Your task to perform on an android device: create a new album in the google photos Image 0: 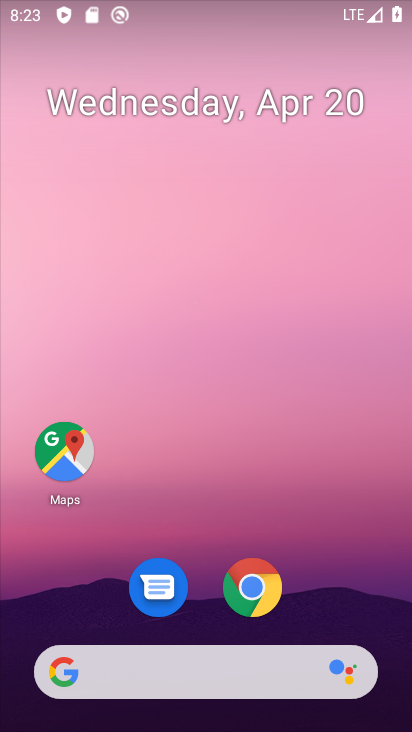
Step 0: drag from (374, 547) to (365, 222)
Your task to perform on an android device: create a new album in the google photos Image 1: 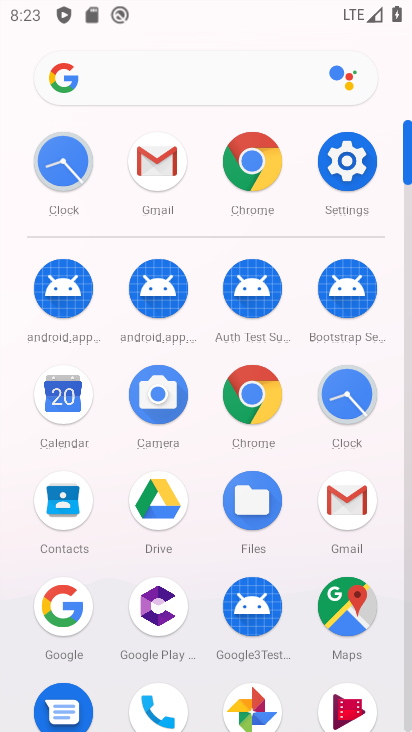
Step 1: drag from (387, 513) to (394, 275)
Your task to perform on an android device: create a new album in the google photos Image 2: 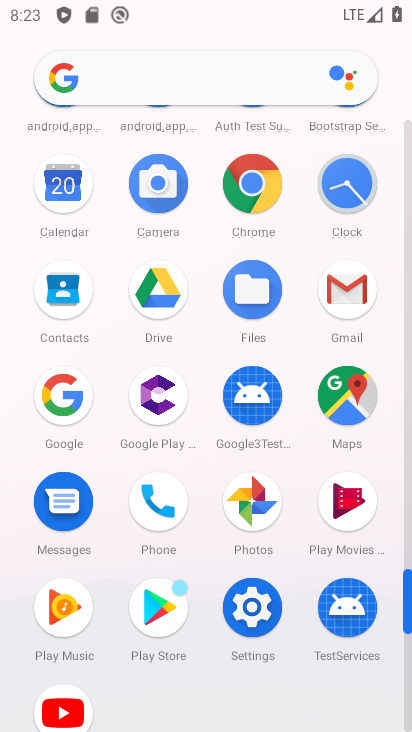
Step 2: click (252, 518)
Your task to perform on an android device: create a new album in the google photos Image 3: 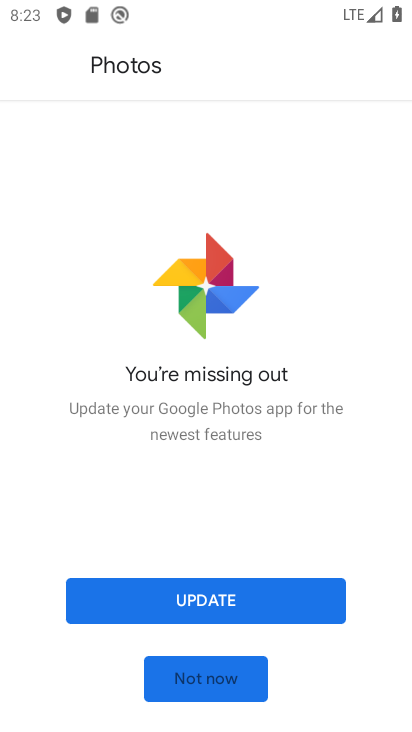
Step 3: click (239, 594)
Your task to perform on an android device: create a new album in the google photos Image 4: 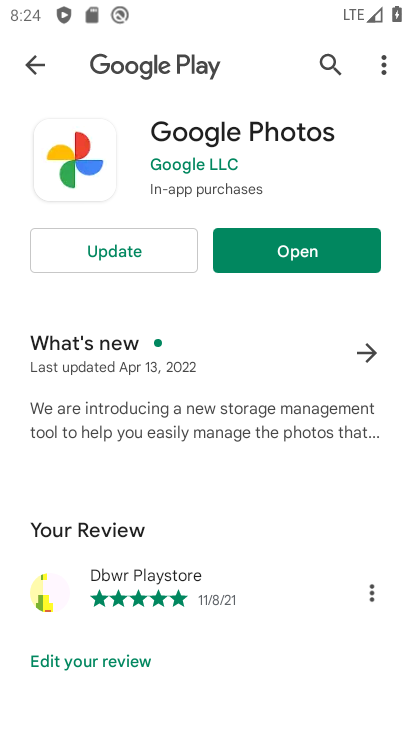
Step 4: click (142, 252)
Your task to perform on an android device: create a new album in the google photos Image 5: 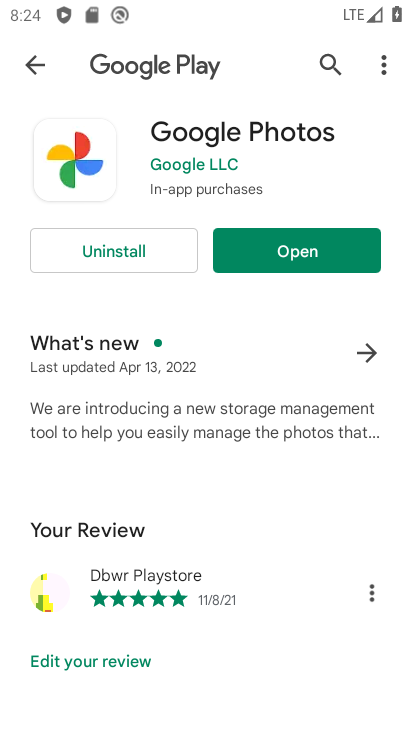
Step 5: click (322, 249)
Your task to perform on an android device: create a new album in the google photos Image 6: 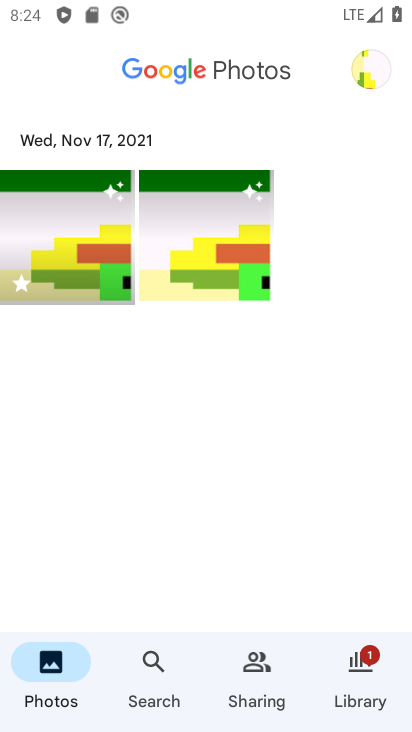
Step 6: click (374, 688)
Your task to perform on an android device: create a new album in the google photos Image 7: 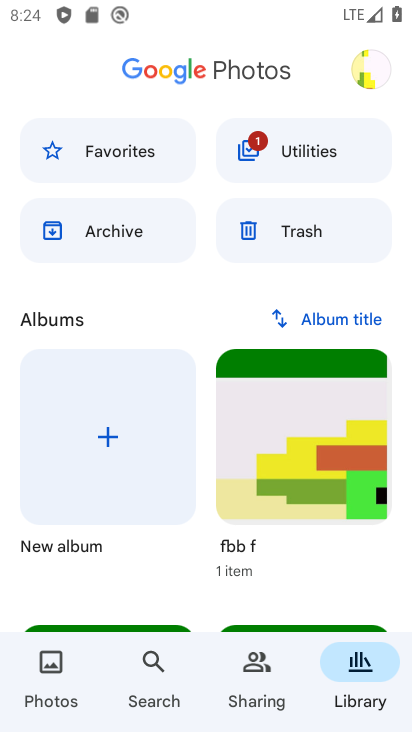
Step 7: click (95, 482)
Your task to perform on an android device: create a new album in the google photos Image 8: 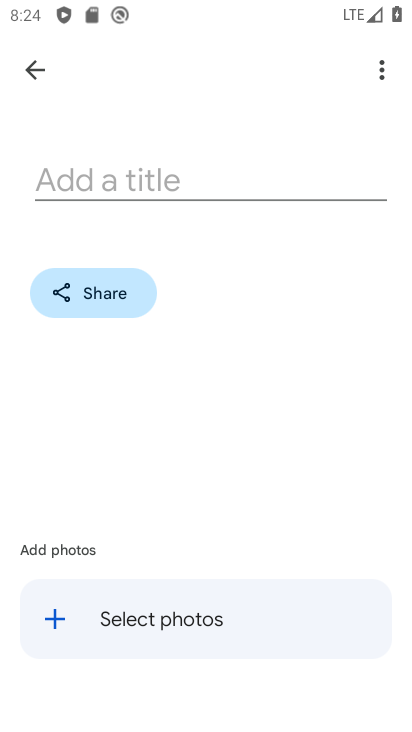
Step 8: click (195, 185)
Your task to perform on an android device: create a new album in the google photos Image 9: 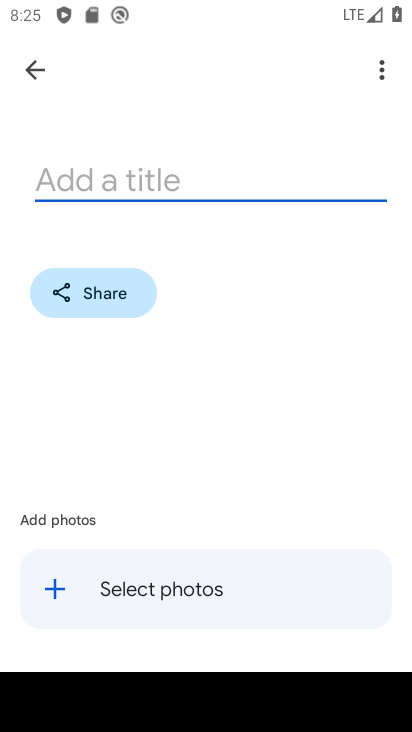
Step 9: type "fav"
Your task to perform on an android device: create a new album in the google photos Image 10: 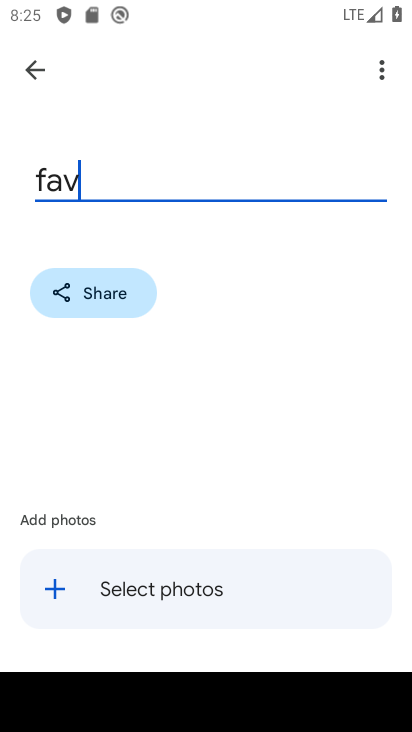
Step 10: click (184, 581)
Your task to perform on an android device: create a new album in the google photos Image 11: 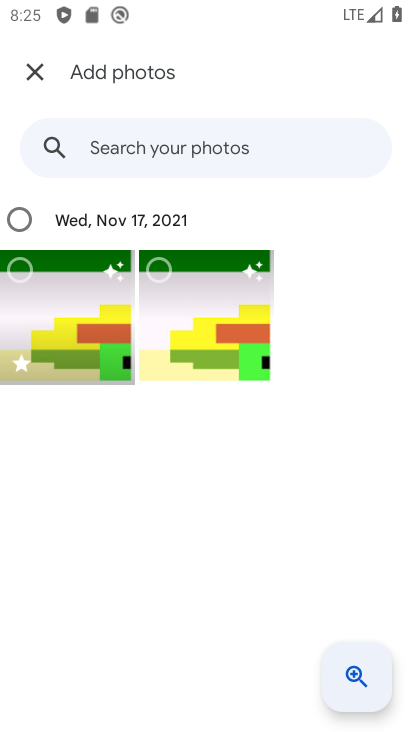
Step 11: click (197, 331)
Your task to perform on an android device: create a new album in the google photos Image 12: 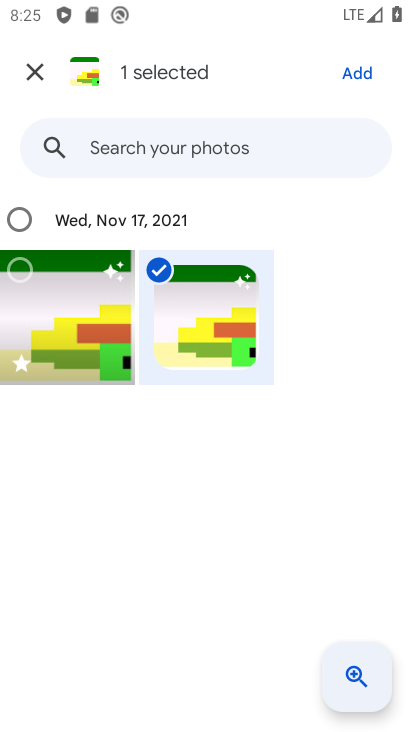
Step 12: click (359, 79)
Your task to perform on an android device: create a new album in the google photos Image 13: 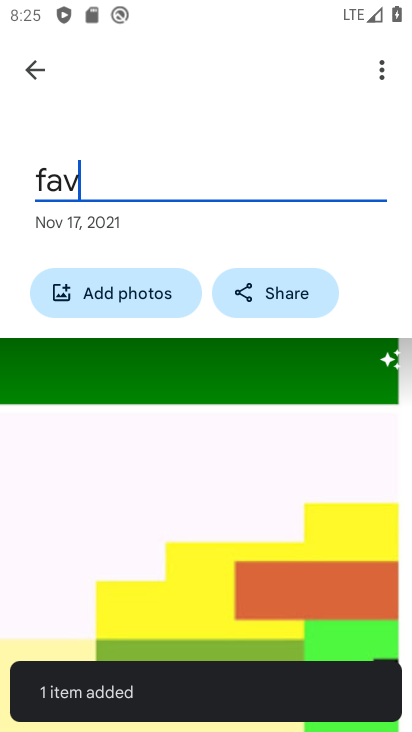
Step 13: task complete